Your task to perform on an android device: search for starred emails in the gmail app Image 0: 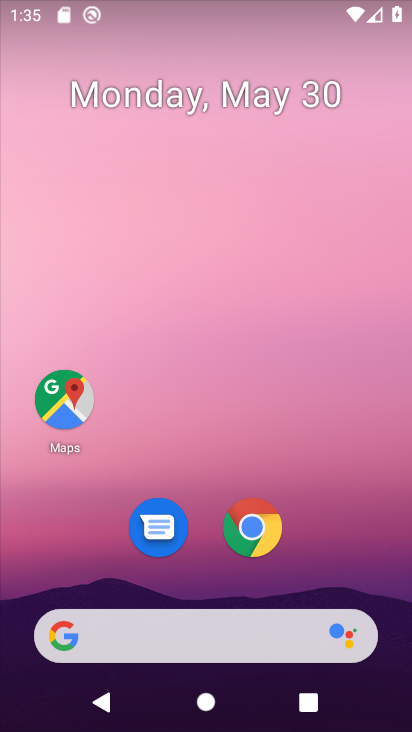
Step 0: drag from (192, 565) to (217, 105)
Your task to perform on an android device: search for starred emails in the gmail app Image 1: 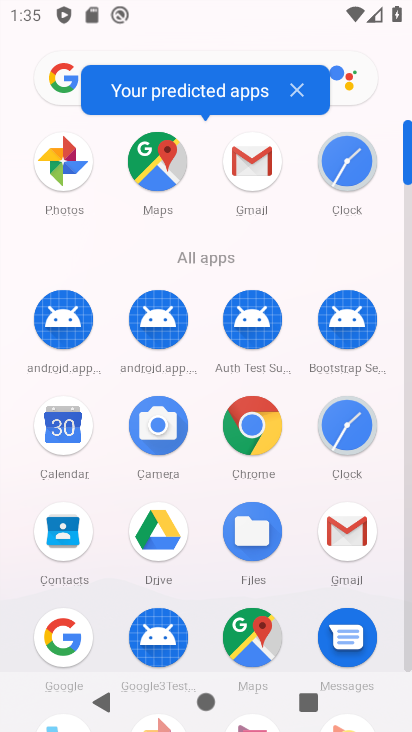
Step 1: click (335, 543)
Your task to perform on an android device: search for starred emails in the gmail app Image 2: 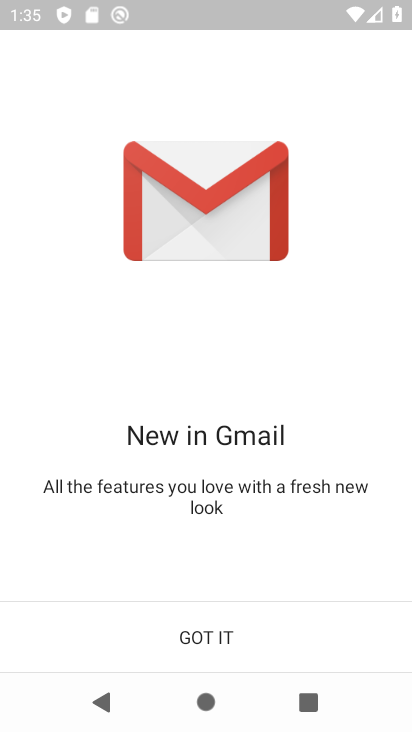
Step 2: click (231, 648)
Your task to perform on an android device: search for starred emails in the gmail app Image 3: 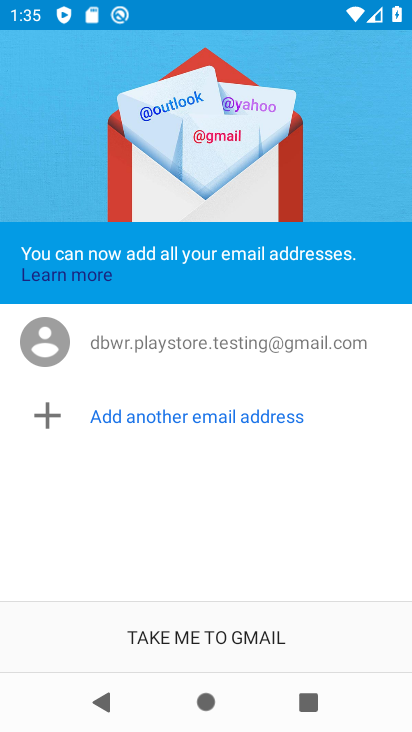
Step 3: click (232, 642)
Your task to perform on an android device: search for starred emails in the gmail app Image 4: 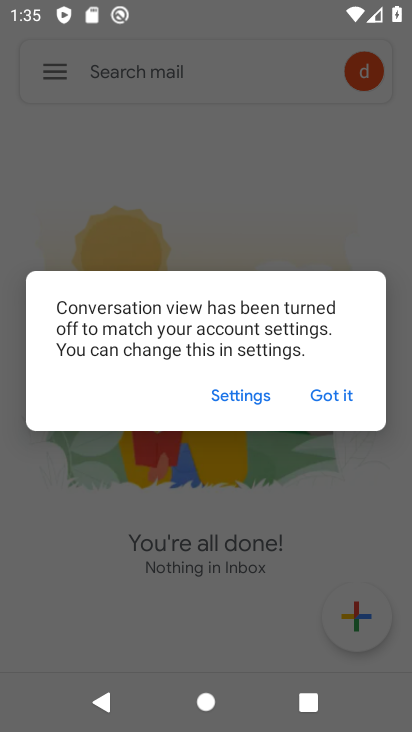
Step 4: click (327, 403)
Your task to perform on an android device: search for starred emails in the gmail app Image 5: 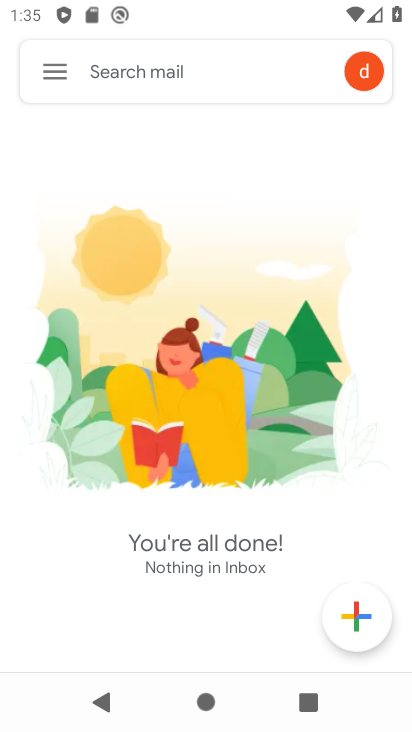
Step 5: click (41, 76)
Your task to perform on an android device: search for starred emails in the gmail app Image 6: 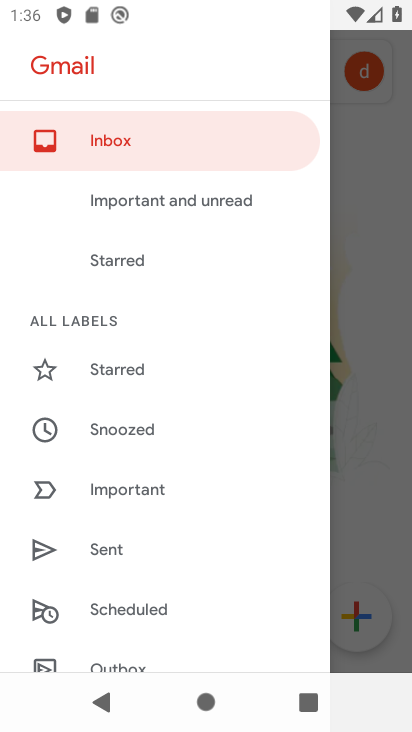
Step 6: click (125, 378)
Your task to perform on an android device: search for starred emails in the gmail app Image 7: 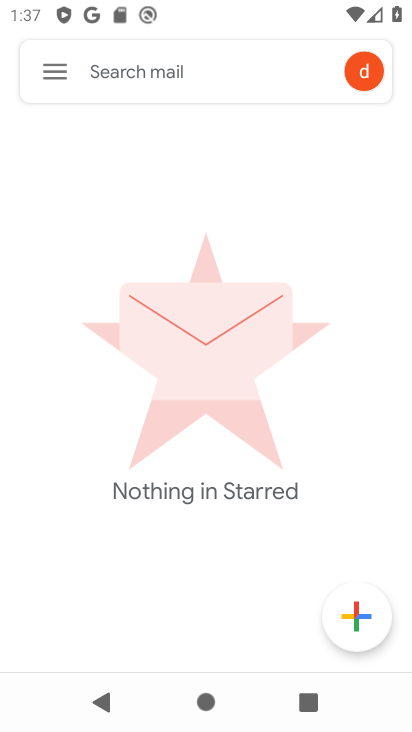
Step 7: task complete